Your task to perform on an android device: change the clock style Image 0: 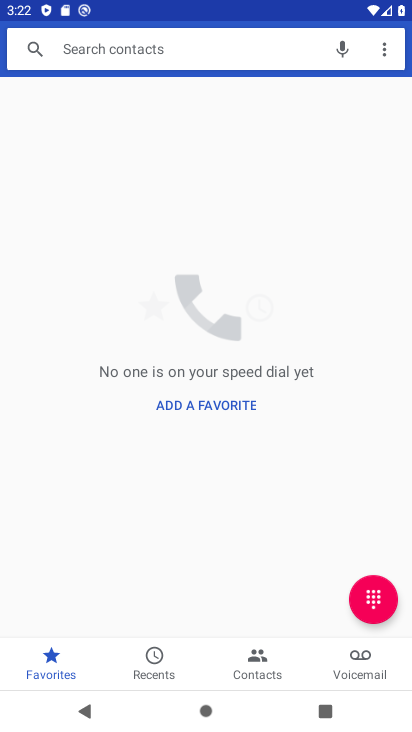
Step 0: press home button
Your task to perform on an android device: change the clock style Image 1: 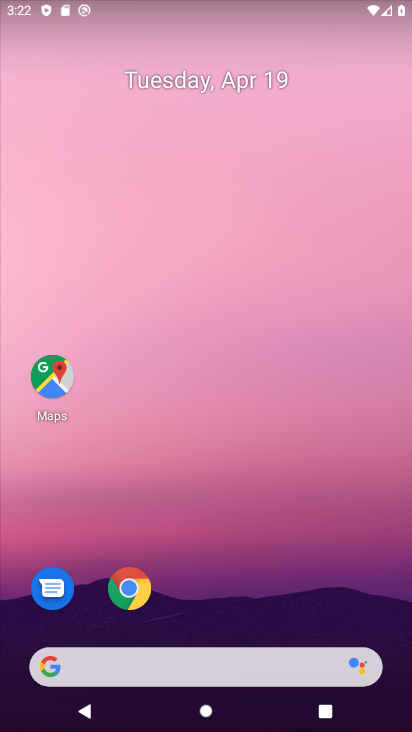
Step 1: drag from (228, 525) to (217, 37)
Your task to perform on an android device: change the clock style Image 2: 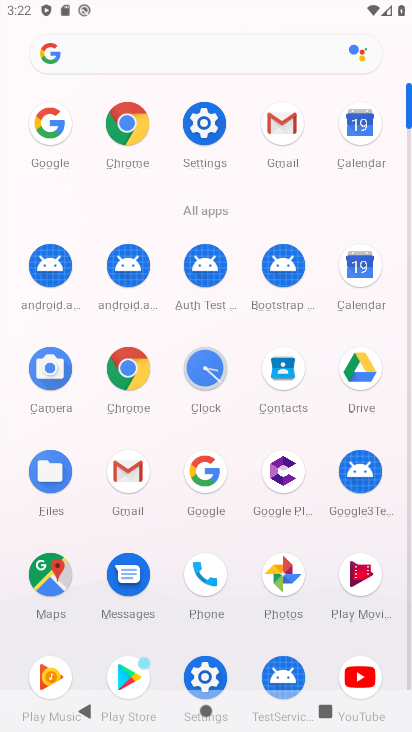
Step 2: click (213, 369)
Your task to perform on an android device: change the clock style Image 3: 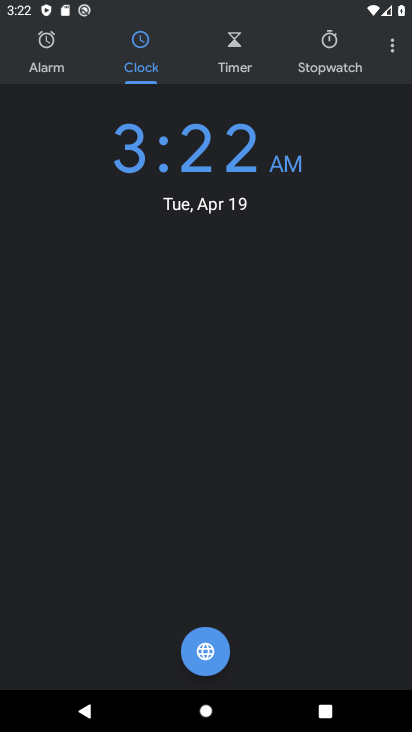
Step 3: click (381, 49)
Your task to perform on an android device: change the clock style Image 4: 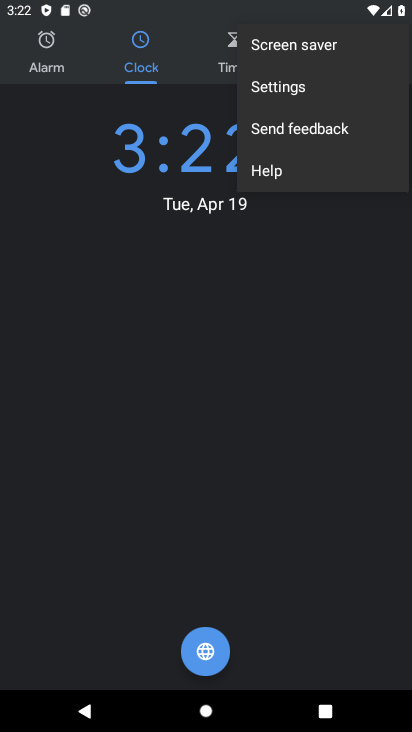
Step 4: click (284, 89)
Your task to perform on an android device: change the clock style Image 5: 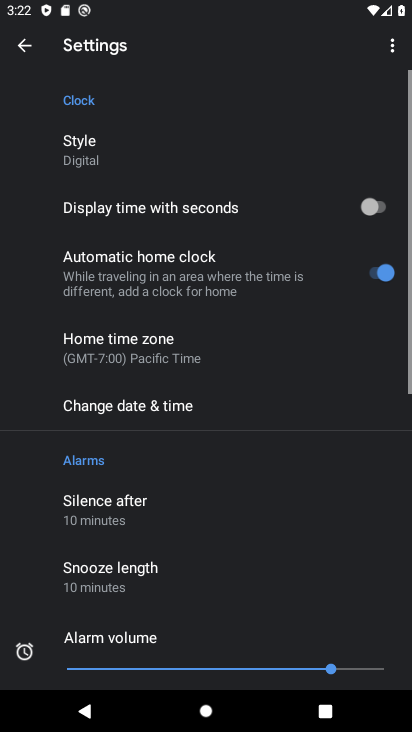
Step 5: click (85, 143)
Your task to perform on an android device: change the clock style Image 6: 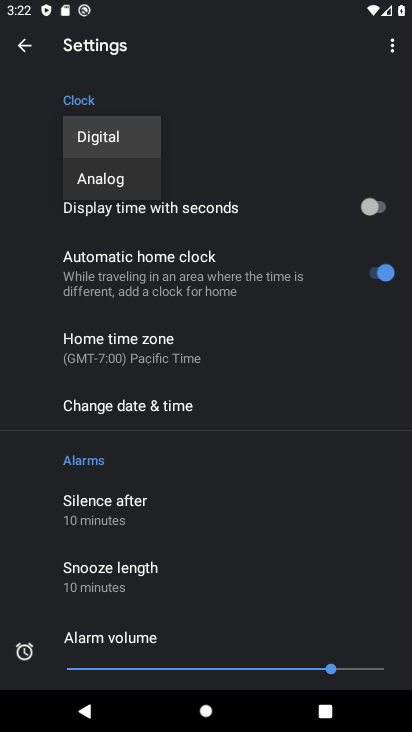
Step 6: click (138, 183)
Your task to perform on an android device: change the clock style Image 7: 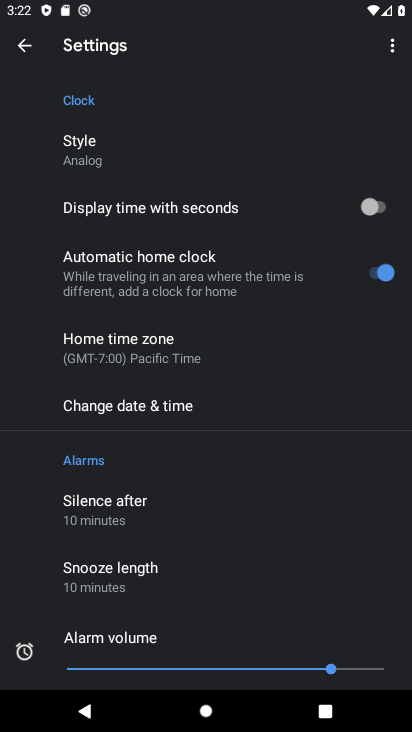
Step 7: task complete